Your task to perform on an android device: Open settings on Google Maps Image 0: 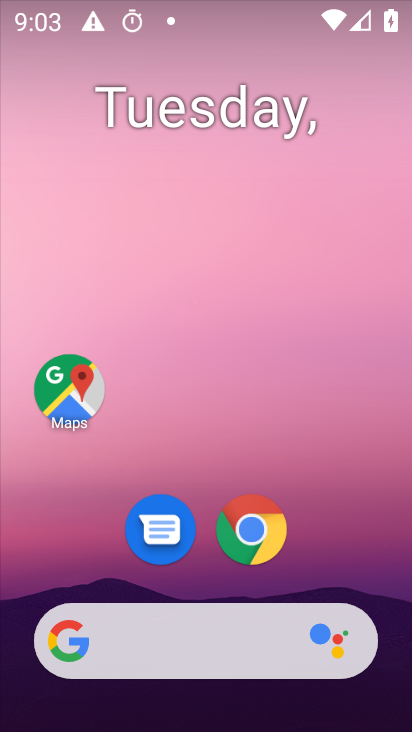
Step 0: drag from (200, 578) to (240, 136)
Your task to perform on an android device: Open settings on Google Maps Image 1: 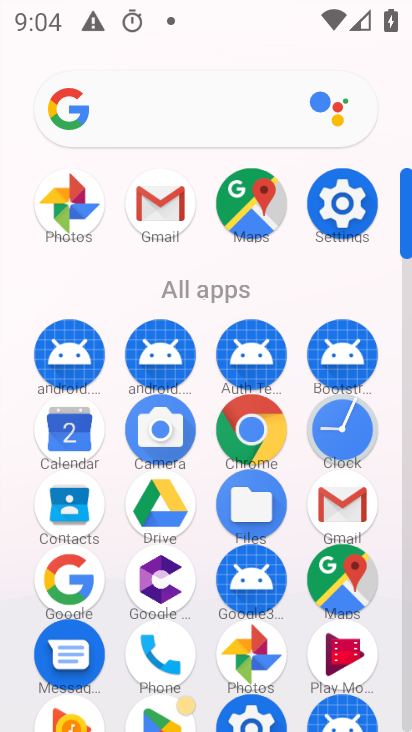
Step 1: drag from (206, 623) to (248, 177)
Your task to perform on an android device: Open settings on Google Maps Image 2: 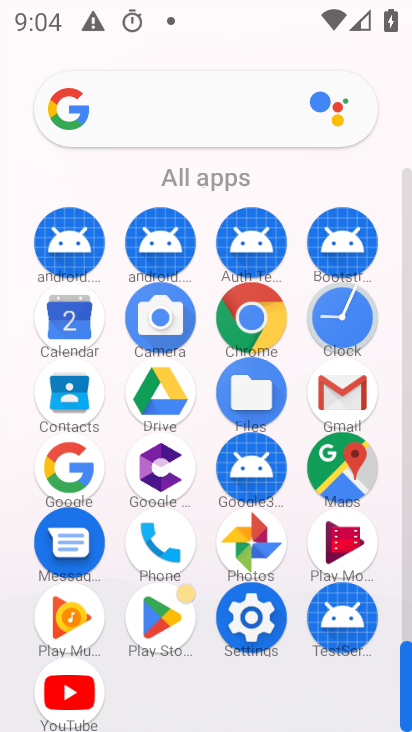
Step 2: click (351, 467)
Your task to perform on an android device: Open settings on Google Maps Image 3: 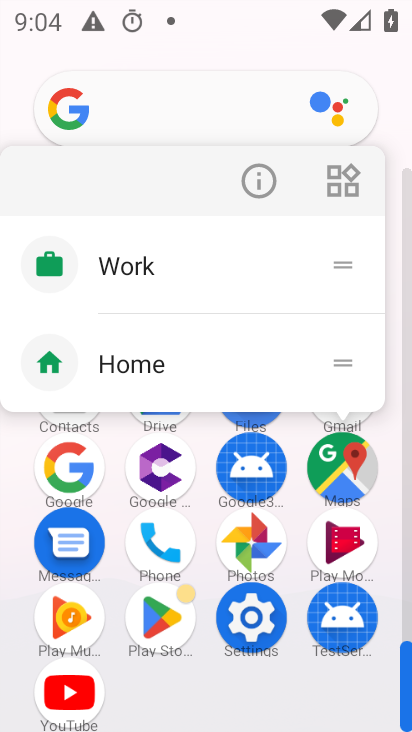
Step 3: click (257, 183)
Your task to perform on an android device: Open settings on Google Maps Image 4: 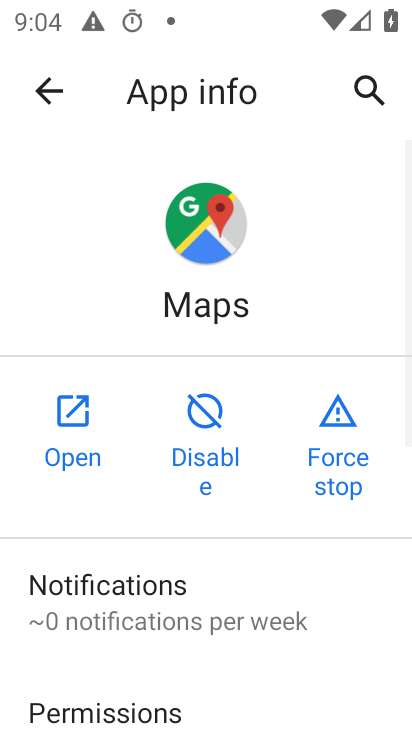
Step 4: click (71, 424)
Your task to perform on an android device: Open settings on Google Maps Image 5: 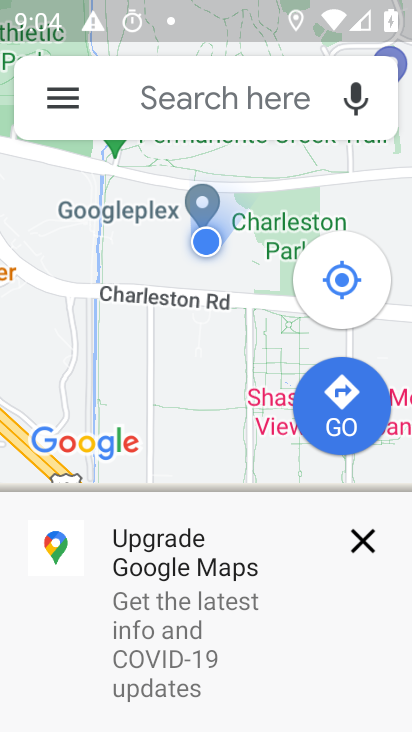
Step 5: click (360, 546)
Your task to perform on an android device: Open settings on Google Maps Image 6: 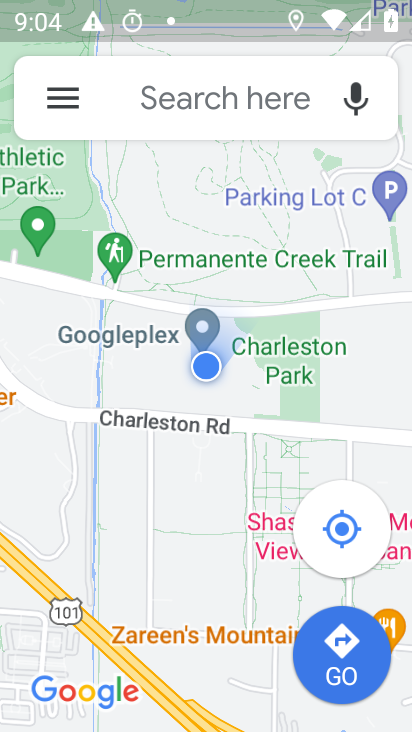
Step 6: click (46, 107)
Your task to perform on an android device: Open settings on Google Maps Image 7: 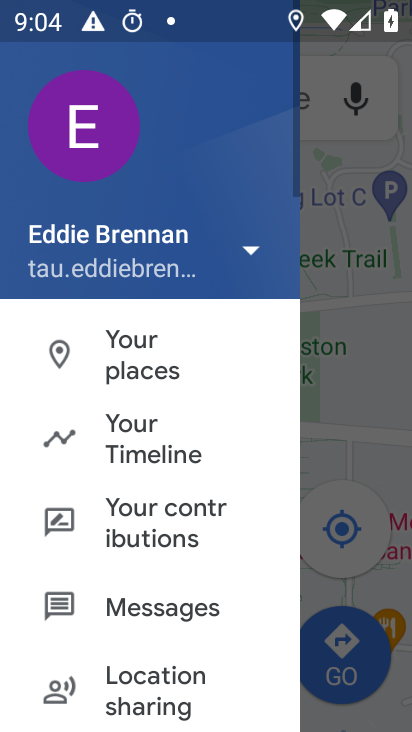
Step 7: drag from (130, 645) to (240, 76)
Your task to perform on an android device: Open settings on Google Maps Image 8: 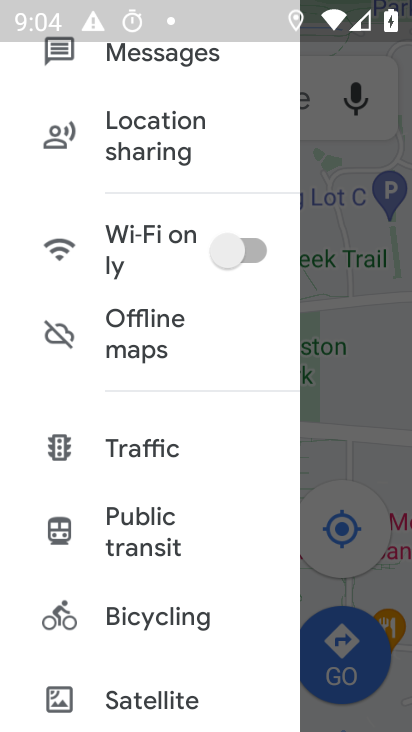
Step 8: drag from (167, 679) to (227, 16)
Your task to perform on an android device: Open settings on Google Maps Image 9: 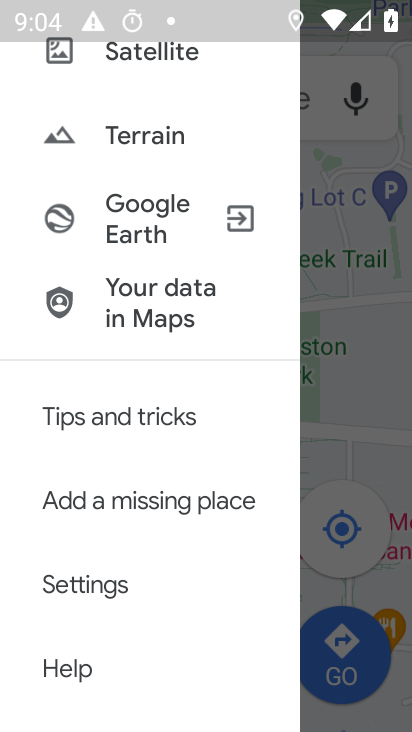
Step 9: click (104, 591)
Your task to perform on an android device: Open settings on Google Maps Image 10: 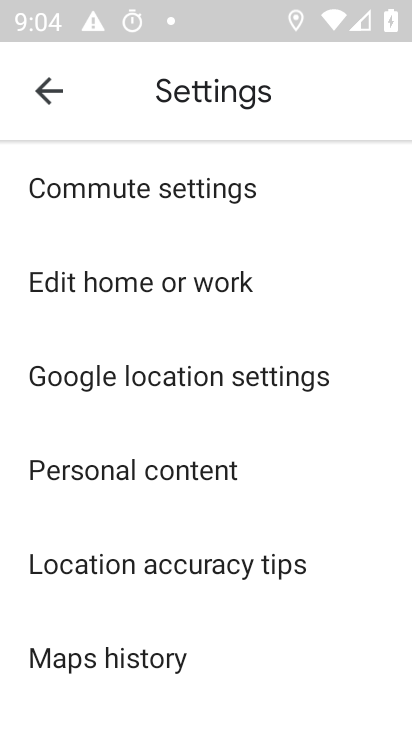
Step 10: drag from (200, 662) to (267, 37)
Your task to perform on an android device: Open settings on Google Maps Image 11: 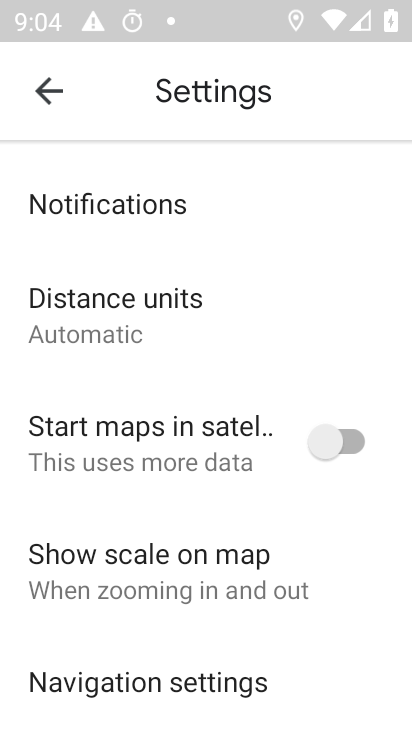
Step 11: click (242, 98)
Your task to perform on an android device: Open settings on Google Maps Image 12: 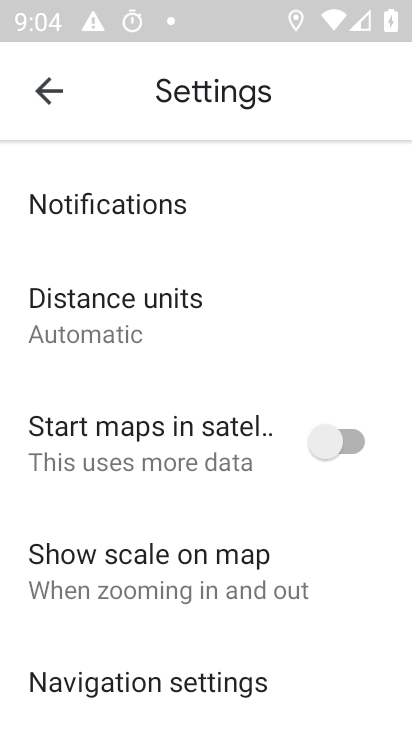
Step 12: task complete